Your task to perform on an android device: set default search engine in the chrome app Image 0: 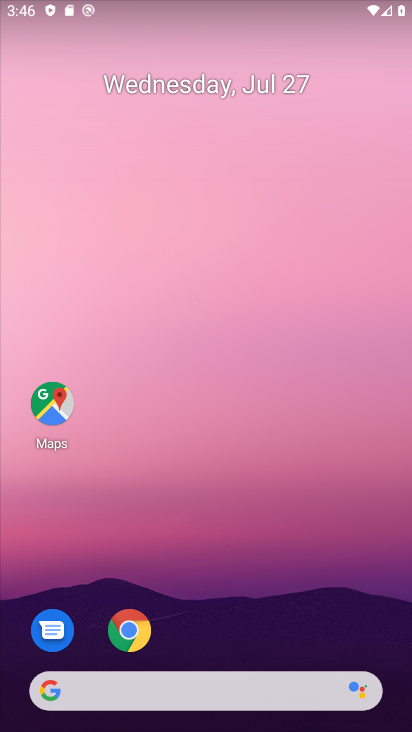
Step 0: drag from (229, 645) to (231, 0)
Your task to perform on an android device: set default search engine in the chrome app Image 1: 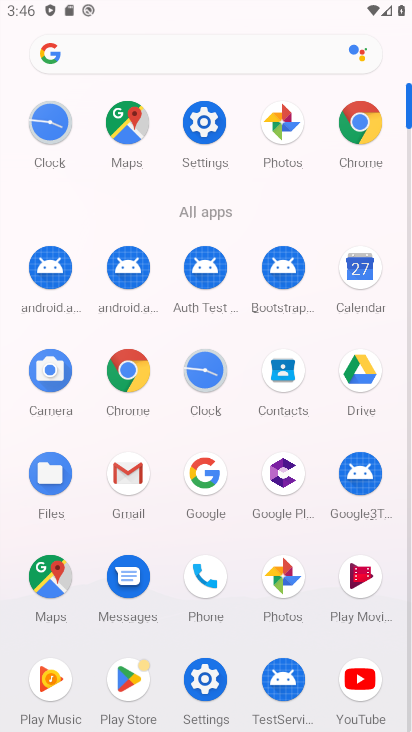
Step 1: click (126, 365)
Your task to perform on an android device: set default search engine in the chrome app Image 2: 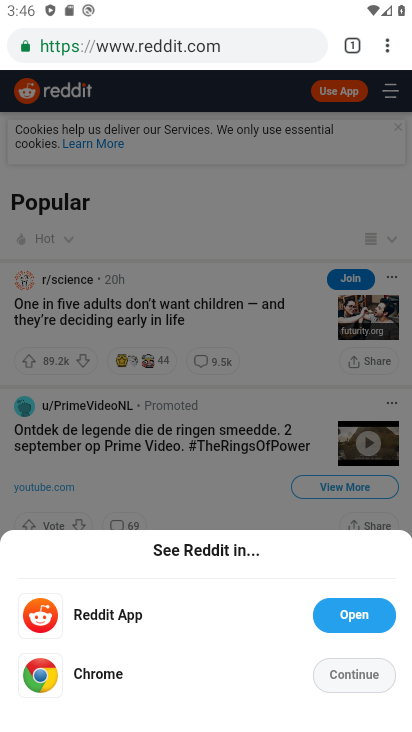
Step 2: click (348, 668)
Your task to perform on an android device: set default search engine in the chrome app Image 3: 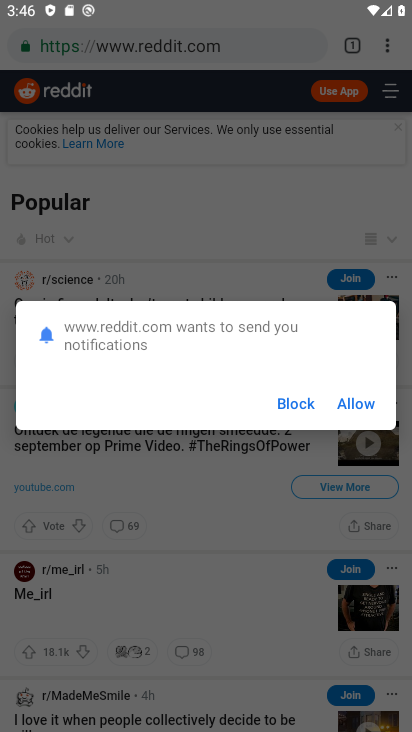
Step 3: click (348, 402)
Your task to perform on an android device: set default search engine in the chrome app Image 4: 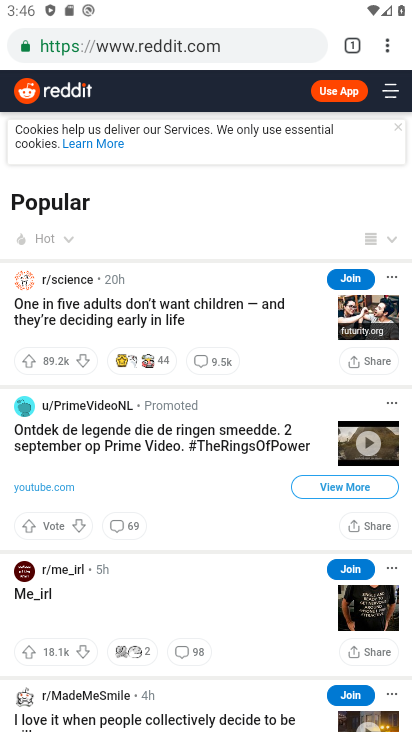
Step 4: click (384, 44)
Your task to perform on an android device: set default search engine in the chrome app Image 5: 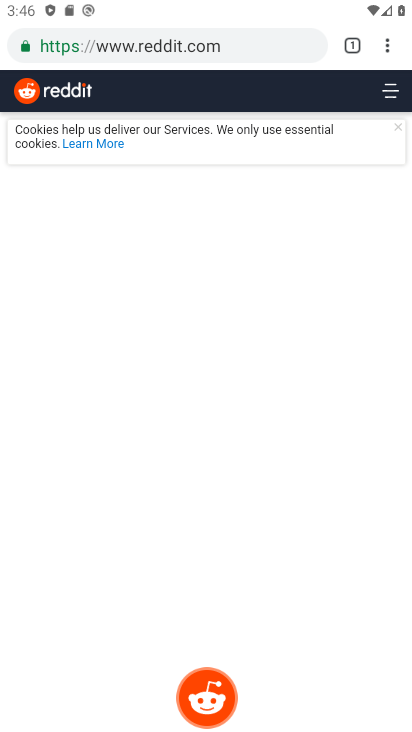
Step 5: click (385, 43)
Your task to perform on an android device: set default search engine in the chrome app Image 6: 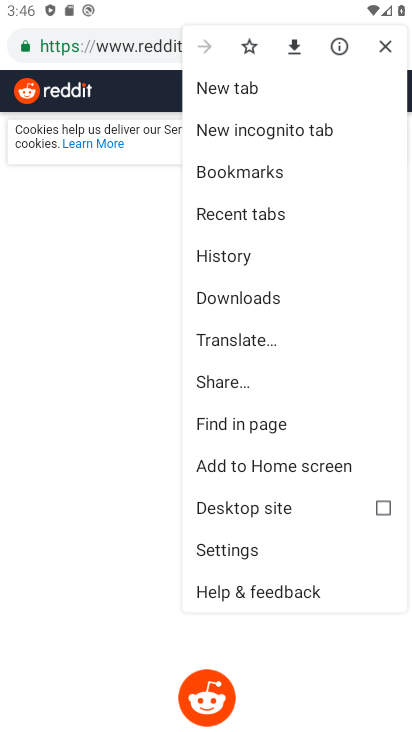
Step 6: click (266, 543)
Your task to perform on an android device: set default search engine in the chrome app Image 7: 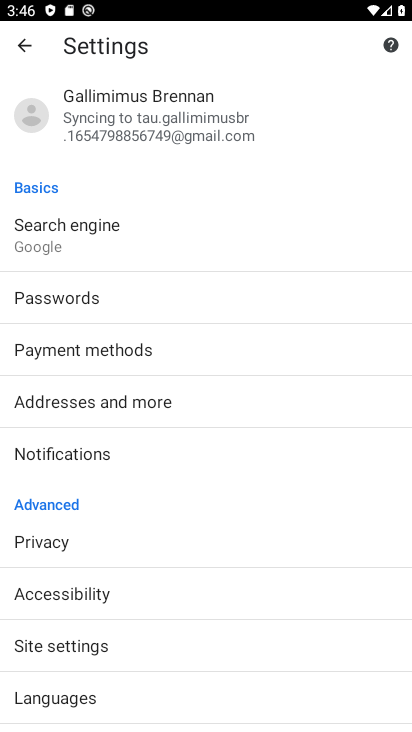
Step 7: click (81, 232)
Your task to perform on an android device: set default search engine in the chrome app Image 8: 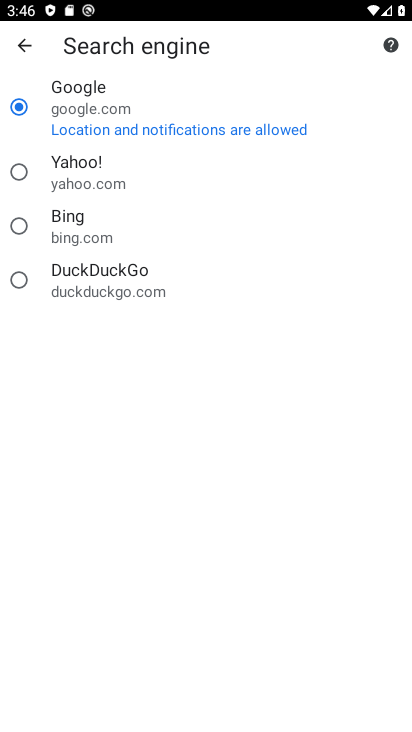
Step 8: click (17, 227)
Your task to perform on an android device: set default search engine in the chrome app Image 9: 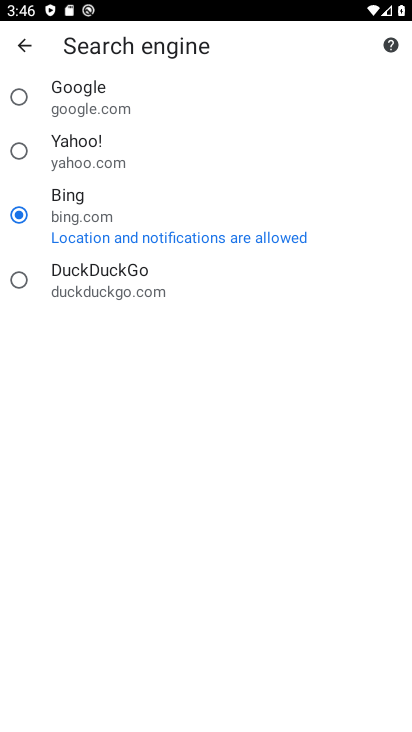
Step 9: task complete